Your task to perform on an android device: Open Google Chrome Image 0: 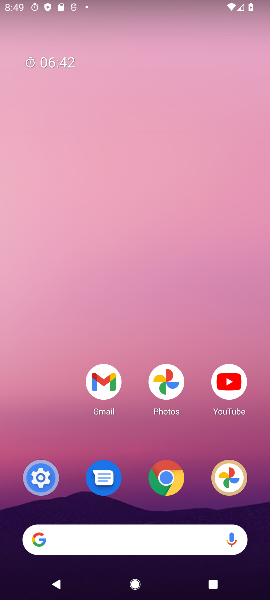
Step 0: press home button
Your task to perform on an android device: Open Google Chrome Image 1: 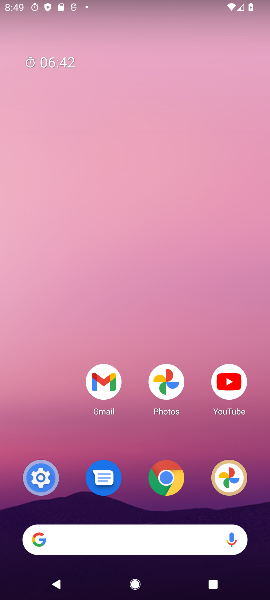
Step 1: press home button
Your task to perform on an android device: Open Google Chrome Image 2: 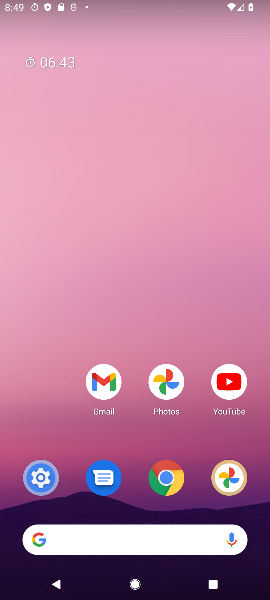
Step 2: press home button
Your task to perform on an android device: Open Google Chrome Image 3: 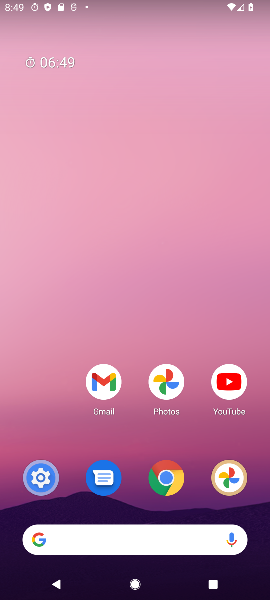
Step 3: click (169, 469)
Your task to perform on an android device: Open Google Chrome Image 4: 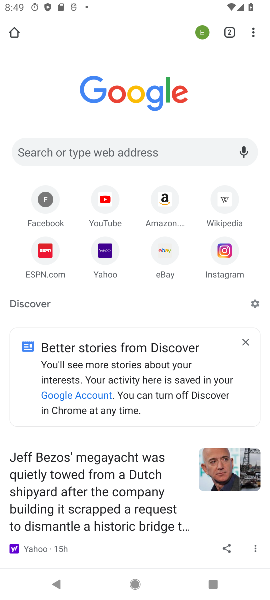
Step 4: task complete